Your task to perform on an android device: toggle translation in the chrome app Image 0: 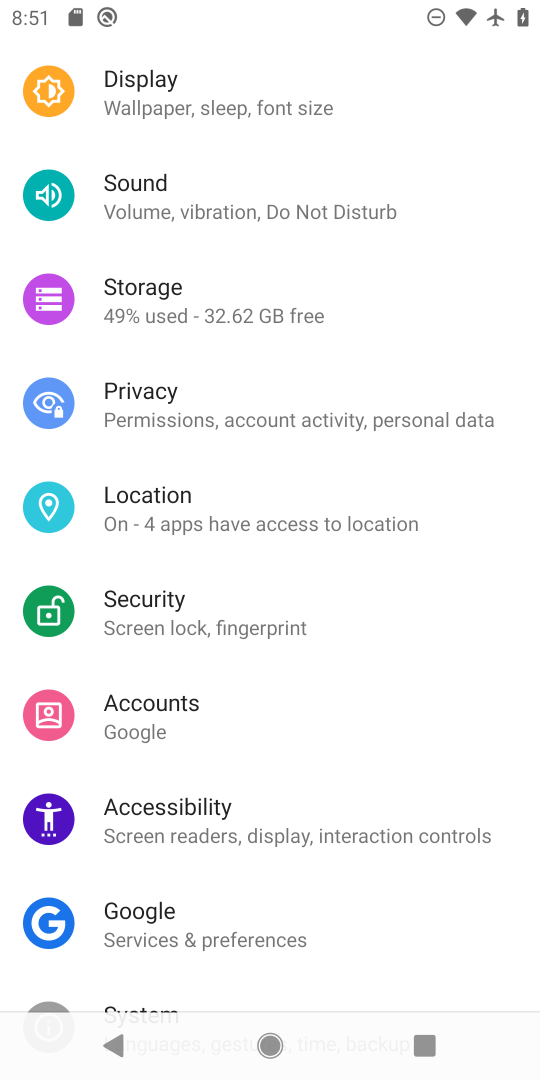
Step 0: press home button
Your task to perform on an android device: toggle translation in the chrome app Image 1: 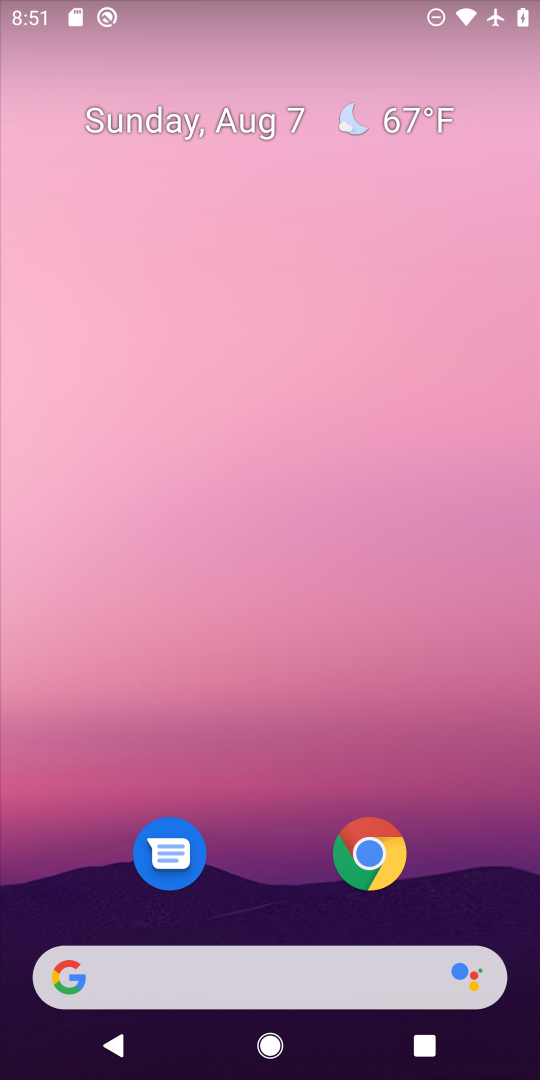
Step 1: drag from (290, 954) to (360, 61)
Your task to perform on an android device: toggle translation in the chrome app Image 2: 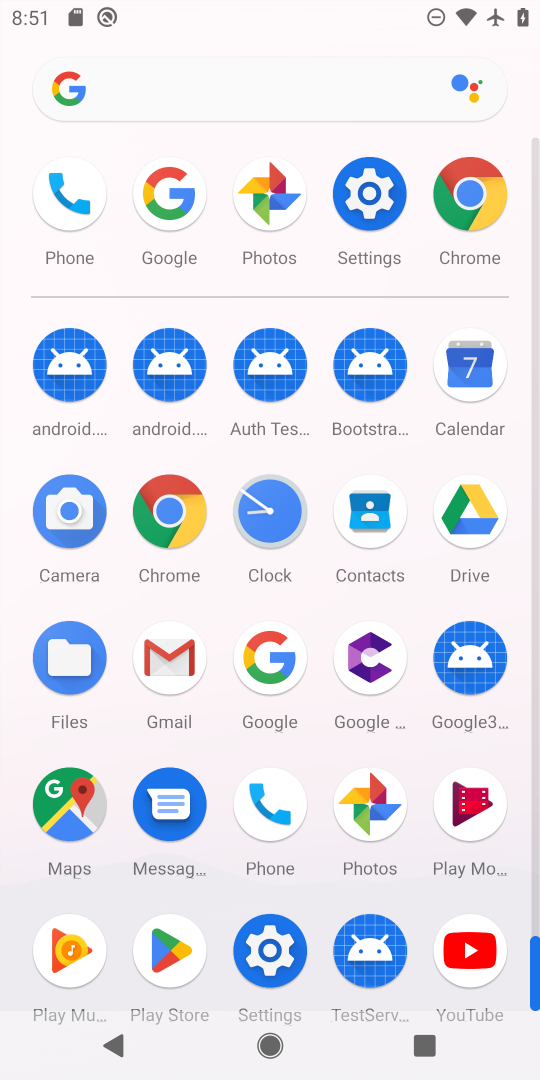
Step 2: click (487, 202)
Your task to perform on an android device: toggle translation in the chrome app Image 3: 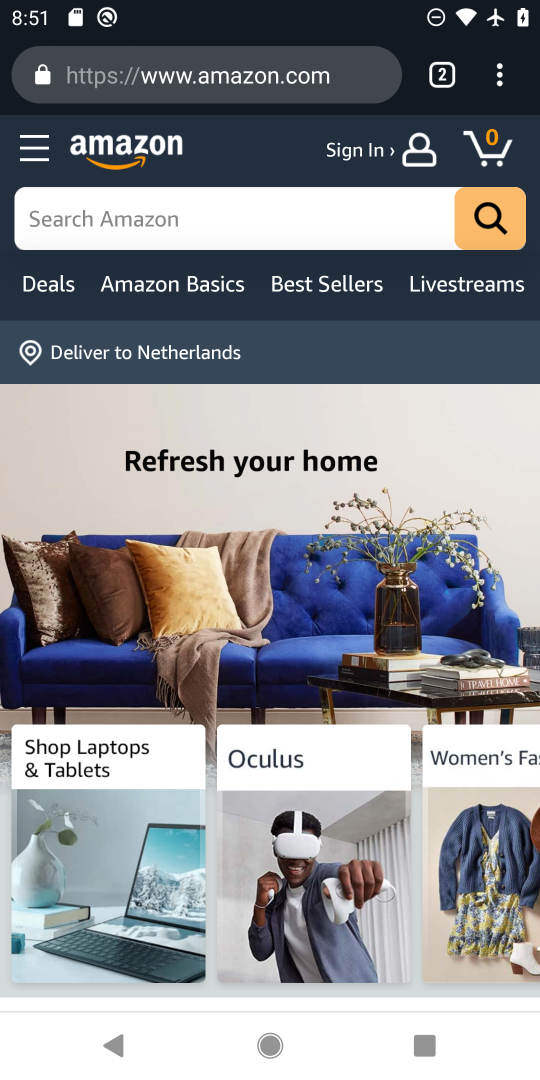
Step 3: click (490, 61)
Your task to perform on an android device: toggle translation in the chrome app Image 4: 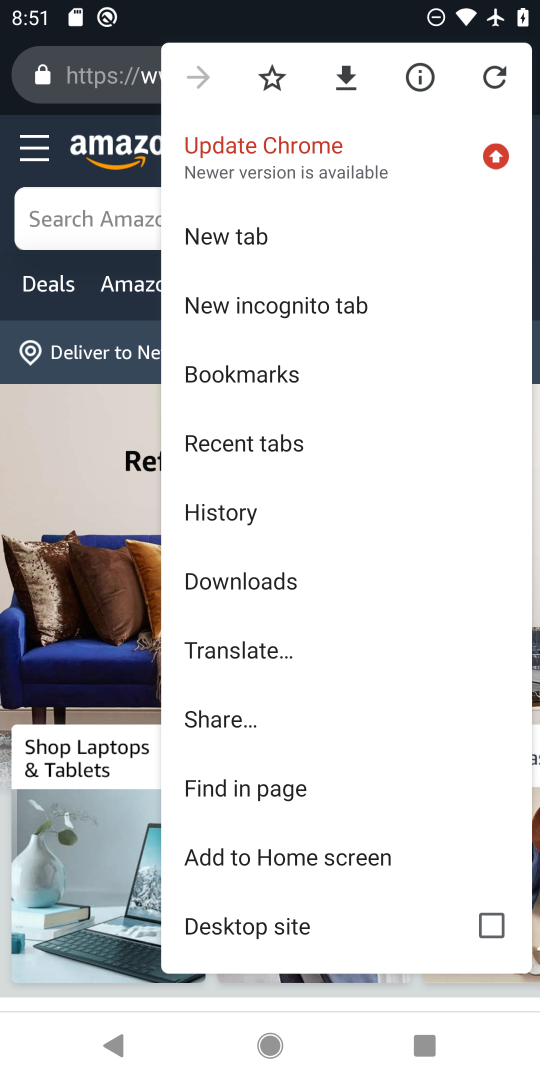
Step 4: click (235, 655)
Your task to perform on an android device: toggle translation in the chrome app Image 5: 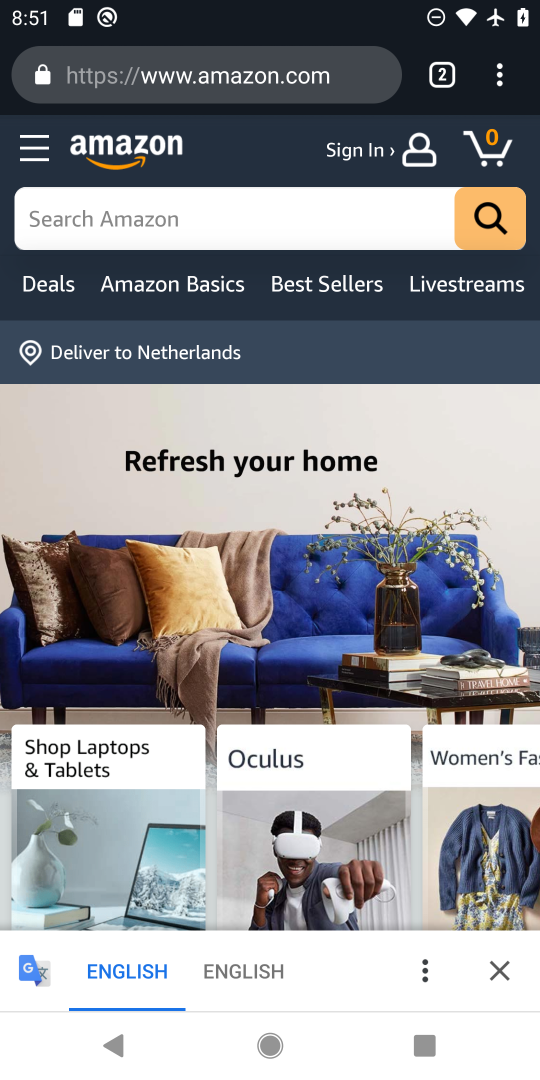
Step 5: click (417, 970)
Your task to perform on an android device: toggle translation in the chrome app Image 6: 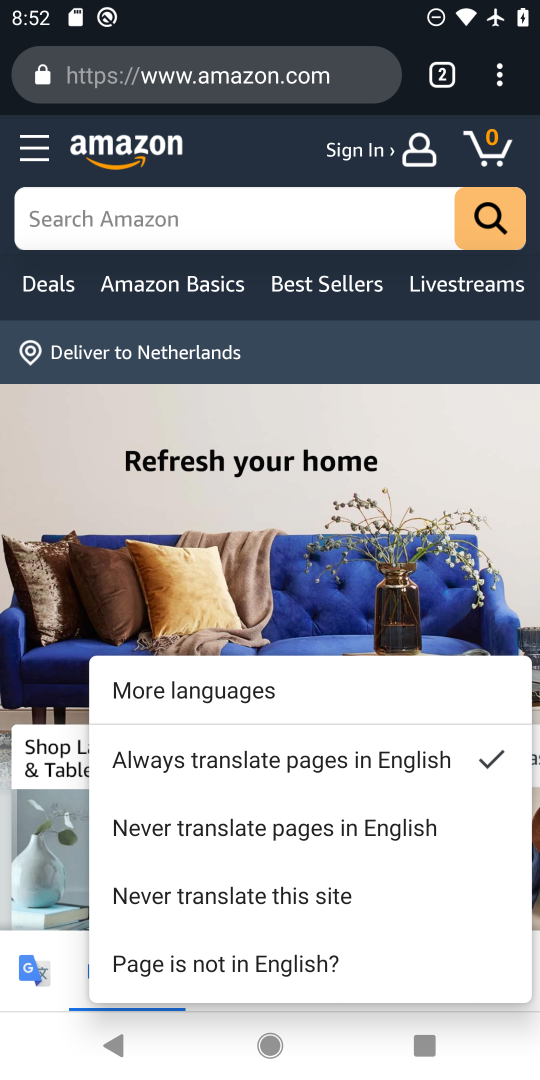
Step 6: click (308, 888)
Your task to perform on an android device: toggle translation in the chrome app Image 7: 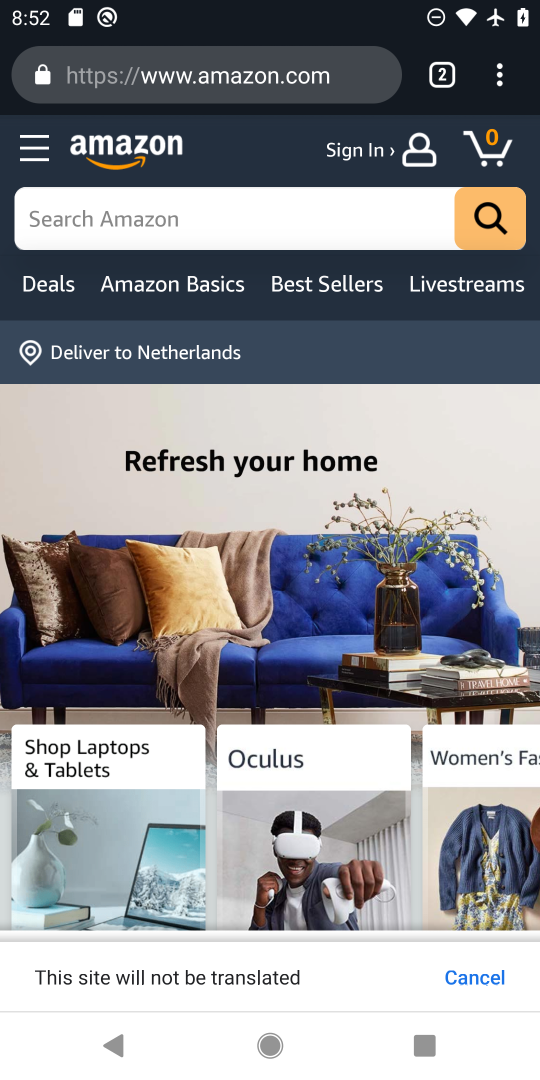
Step 7: task complete